Your task to perform on an android device: What is the capital of Sweden? Image 0: 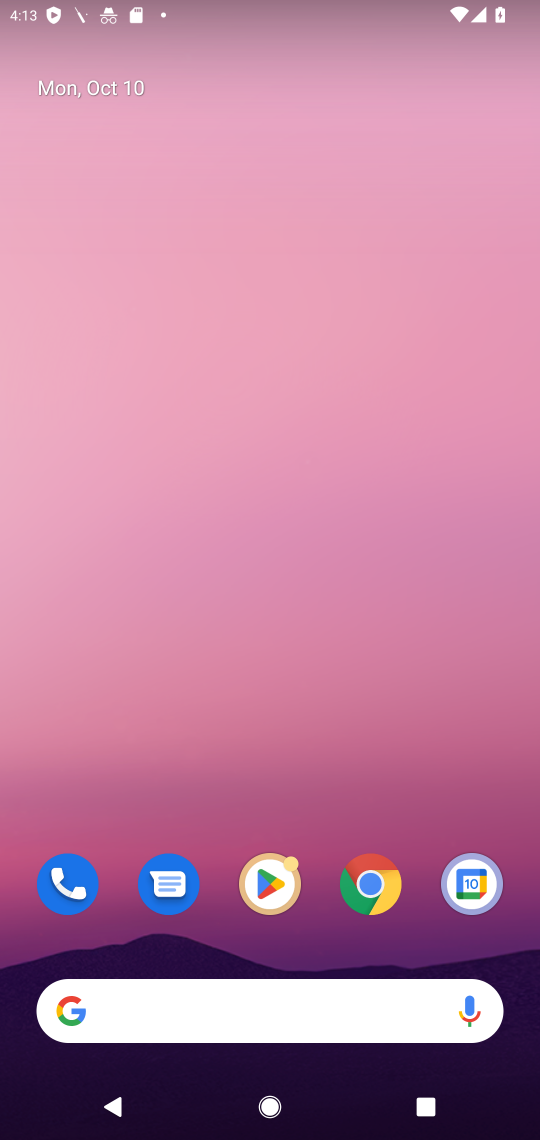
Step 0: click (219, 995)
Your task to perform on an android device: What is the capital of Sweden? Image 1: 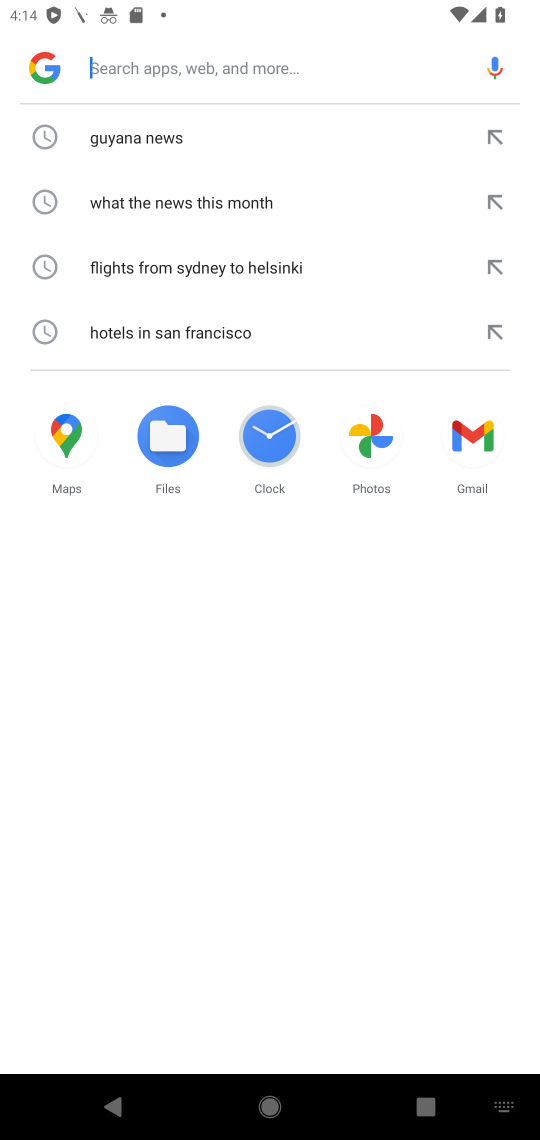
Step 1: type "What is the capital of Sweden?"
Your task to perform on an android device: What is the capital of Sweden? Image 2: 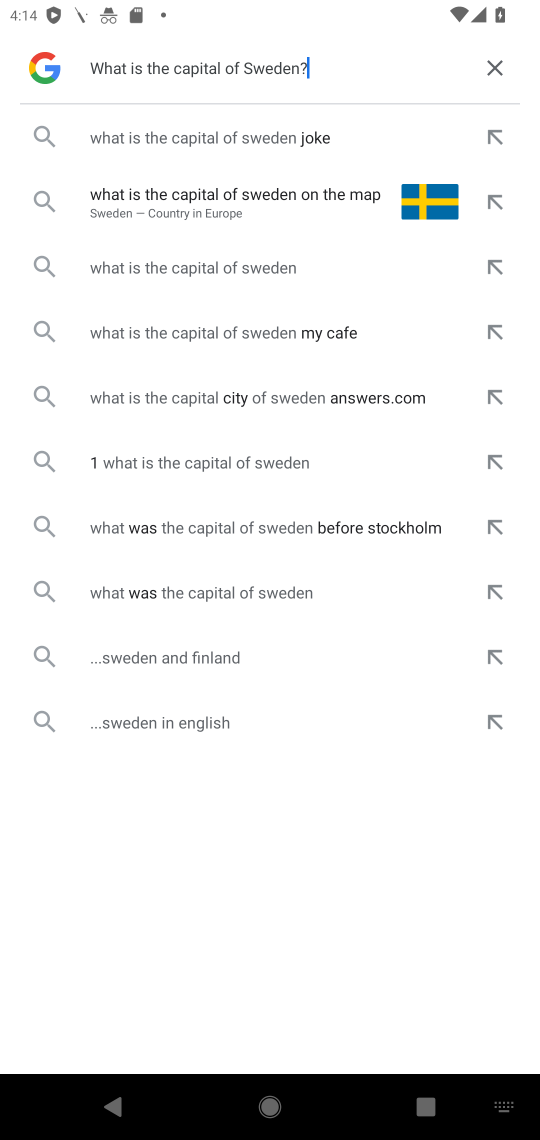
Step 2: click (247, 462)
Your task to perform on an android device: What is the capital of Sweden? Image 3: 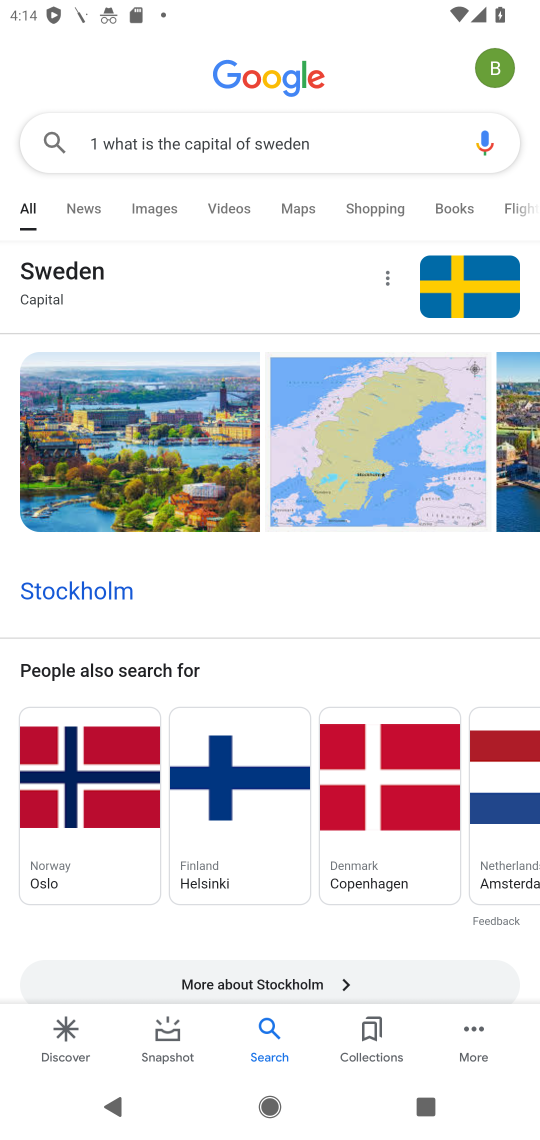
Step 3: task complete